Your task to perform on an android device: Open settings Image 0: 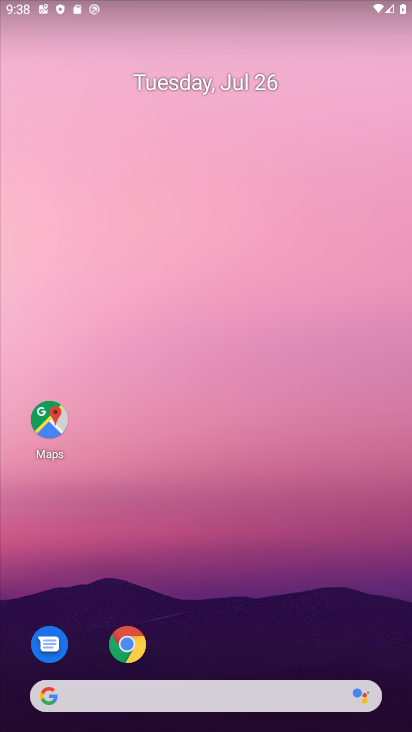
Step 0: drag from (202, 654) to (244, 40)
Your task to perform on an android device: Open settings Image 1: 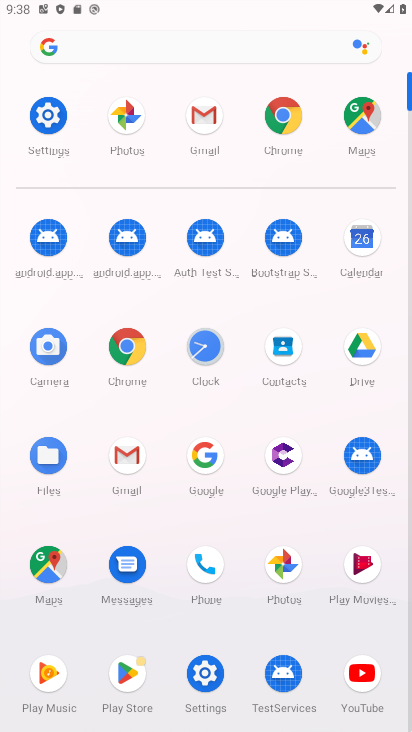
Step 1: click (211, 670)
Your task to perform on an android device: Open settings Image 2: 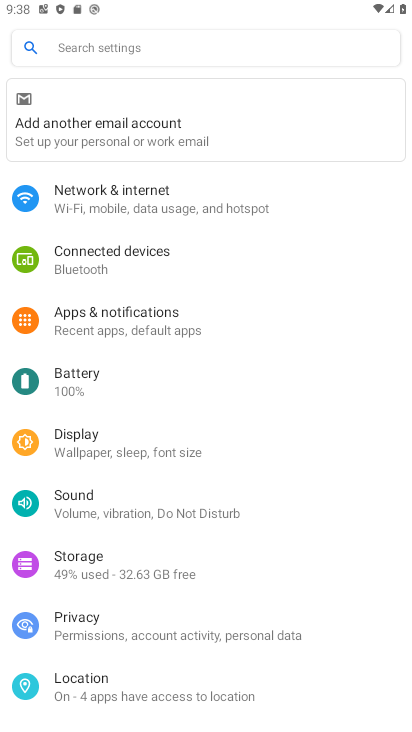
Step 2: task complete